Your task to perform on an android device: check android version Image 0: 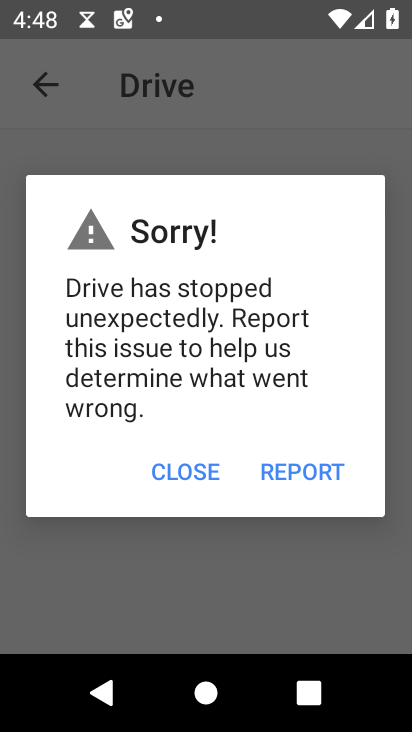
Step 0: press home button
Your task to perform on an android device: check android version Image 1: 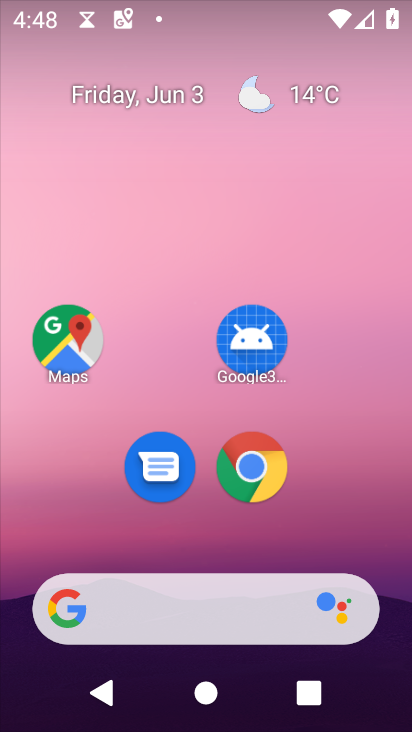
Step 1: drag from (318, 514) to (331, 74)
Your task to perform on an android device: check android version Image 2: 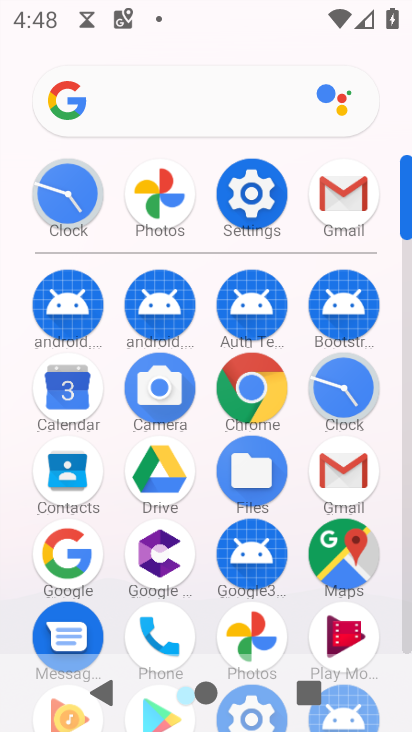
Step 2: click (263, 210)
Your task to perform on an android device: check android version Image 3: 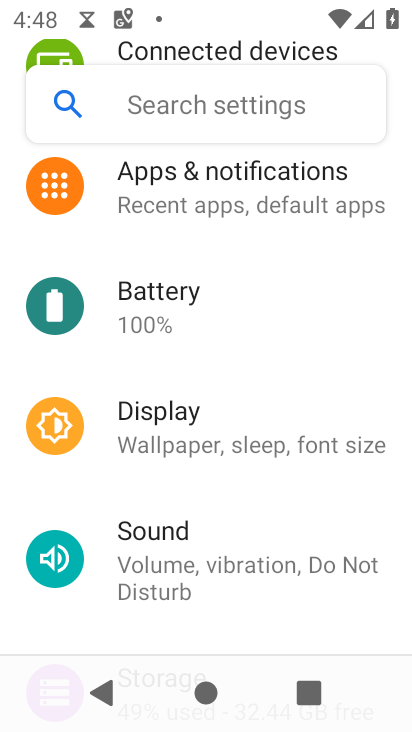
Step 3: drag from (218, 492) to (274, 163)
Your task to perform on an android device: check android version Image 4: 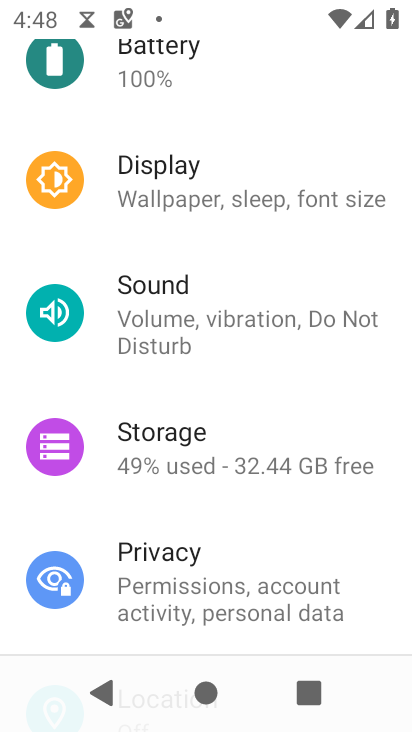
Step 4: drag from (260, 533) to (370, 127)
Your task to perform on an android device: check android version Image 5: 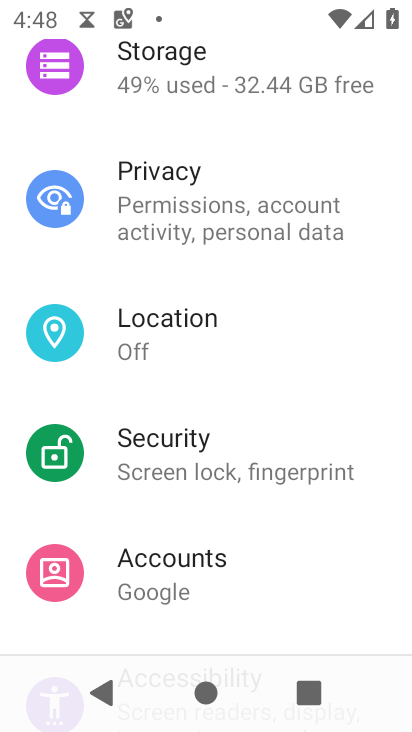
Step 5: drag from (273, 528) to (331, 153)
Your task to perform on an android device: check android version Image 6: 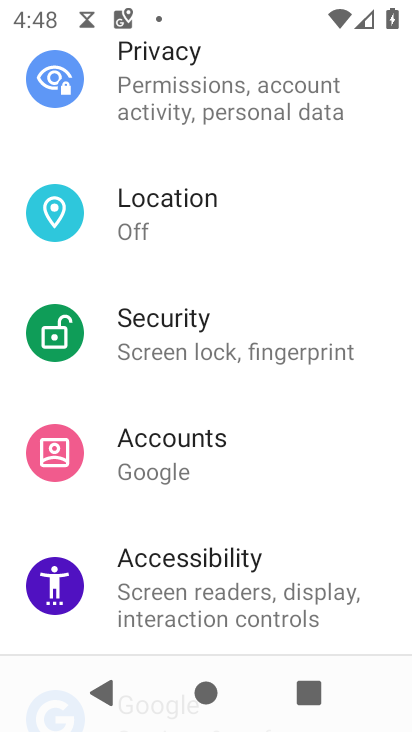
Step 6: drag from (256, 476) to (329, 90)
Your task to perform on an android device: check android version Image 7: 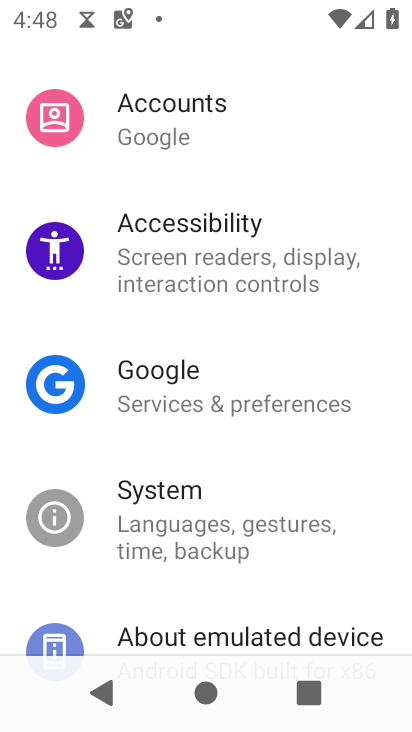
Step 7: drag from (214, 485) to (319, 31)
Your task to perform on an android device: check android version Image 8: 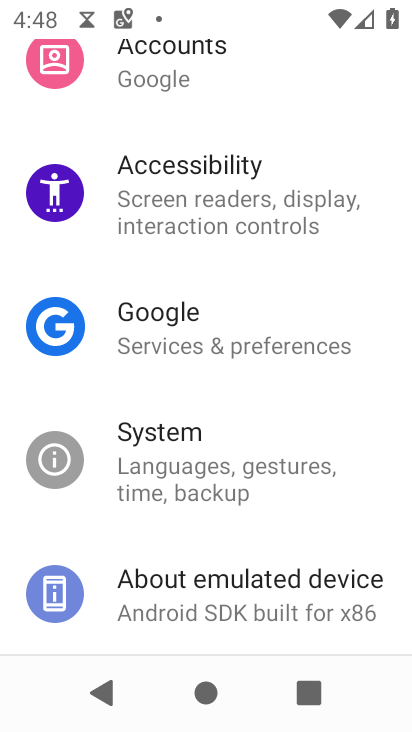
Step 8: click (136, 580)
Your task to perform on an android device: check android version Image 9: 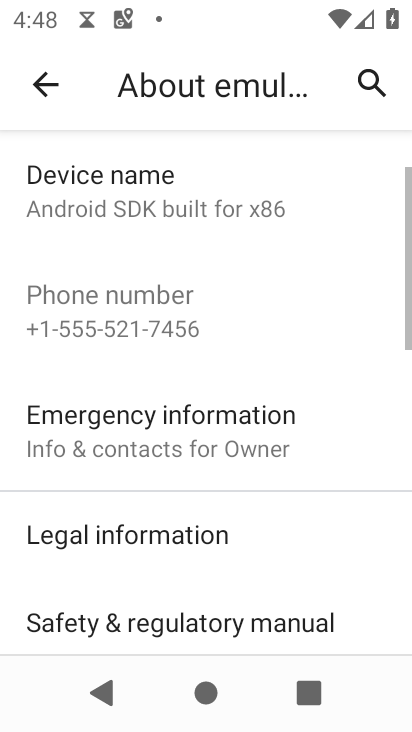
Step 9: drag from (189, 486) to (235, 122)
Your task to perform on an android device: check android version Image 10: 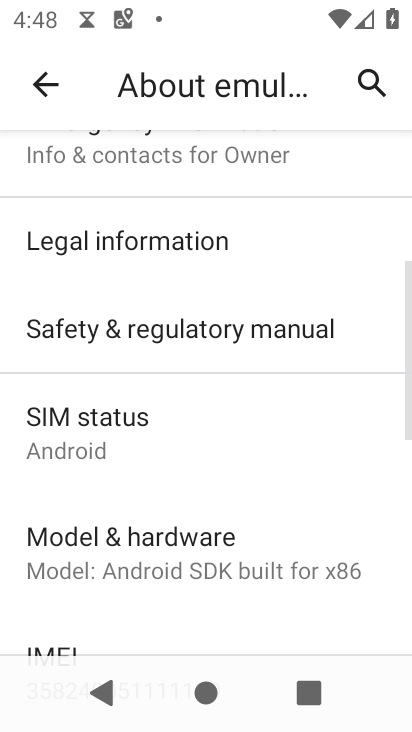
Step 10: drag from (117, 566) to (225, 153)
Your task to perform on an android device: check android version Image 11: 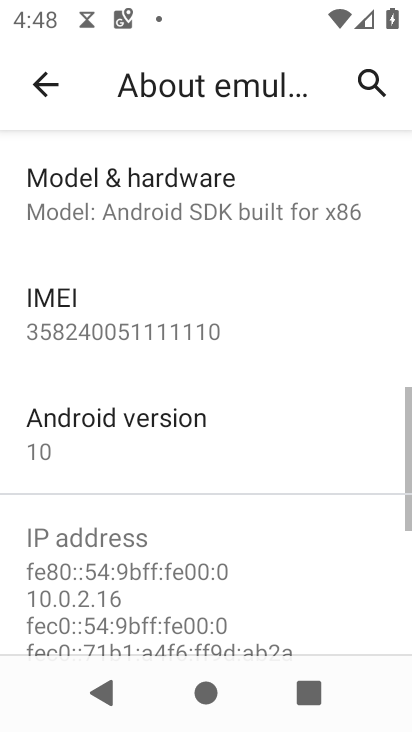
Step 11: drag from (151, 582) to (206, 260)
Your task to perform on an android device: check android version Image 12: 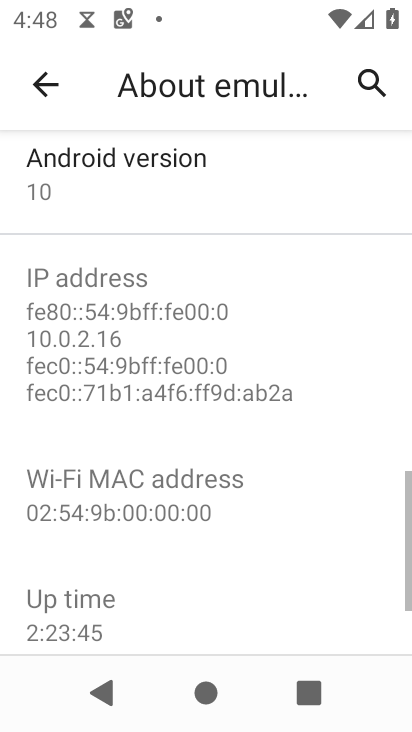
Step 12: click (207, 179)
Your task to perform on an android device: check android version Image 13: 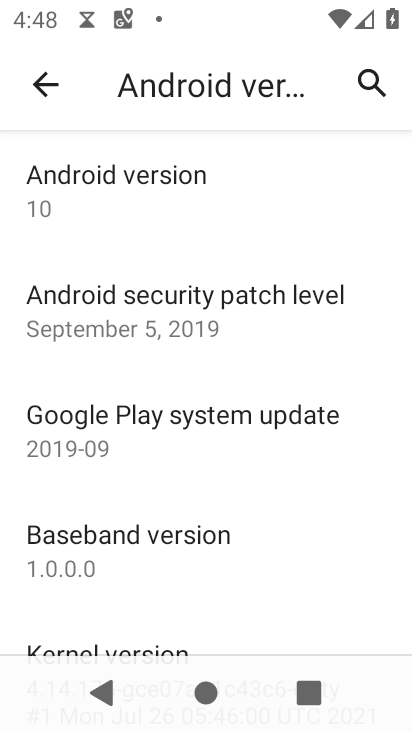
Step 13: click (210, 180)
Your task to perform on an android device: check android version Image 14: 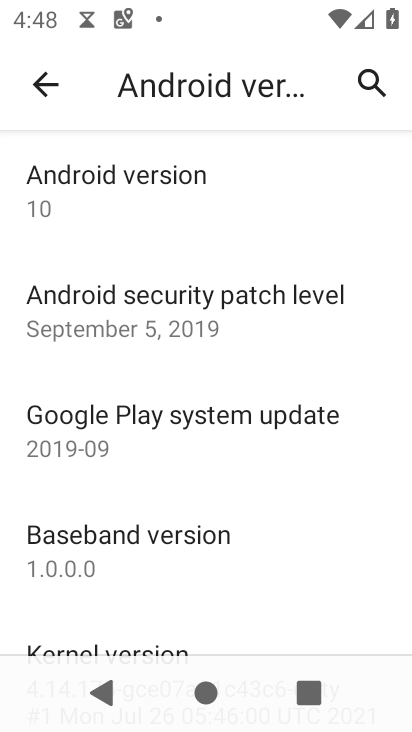
Step 14: task complete